Your task to perform on an android device: turn off translation in the chrome app Image 0: 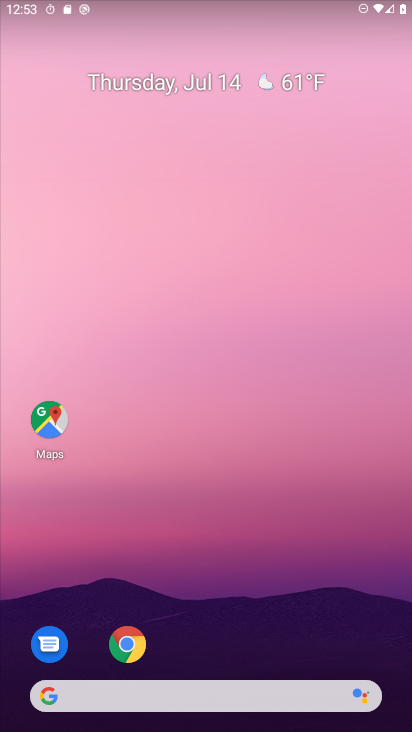
Step 0: drag from (227, 594) to (208, 124)
Your task to perform on an android device: turn off translation in the chrome app Image 1: 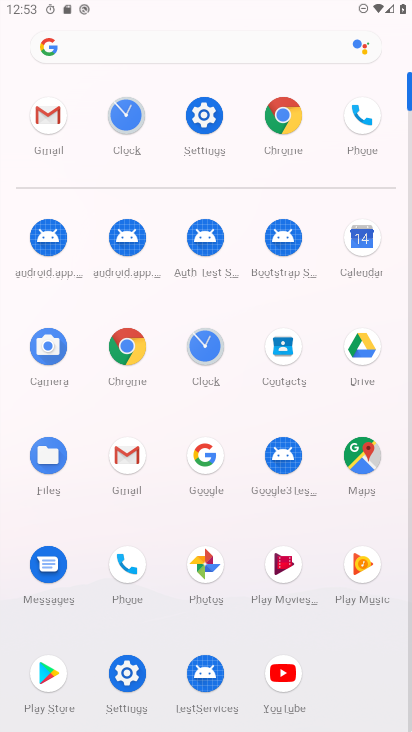
Step 1: click (127, 343)
Your task to perform on an android device: turn off translation in the chrome app Image 2: 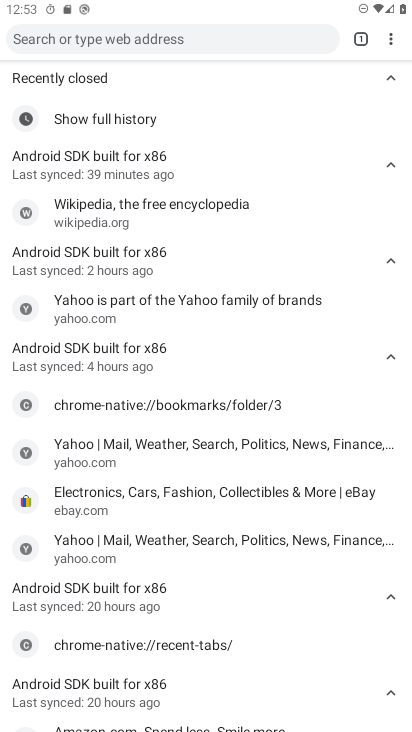
Step 2: drag from (393, 42) to (284, 329)
Your task to perform on an android device: turn off translation in the chrome app Image 3: 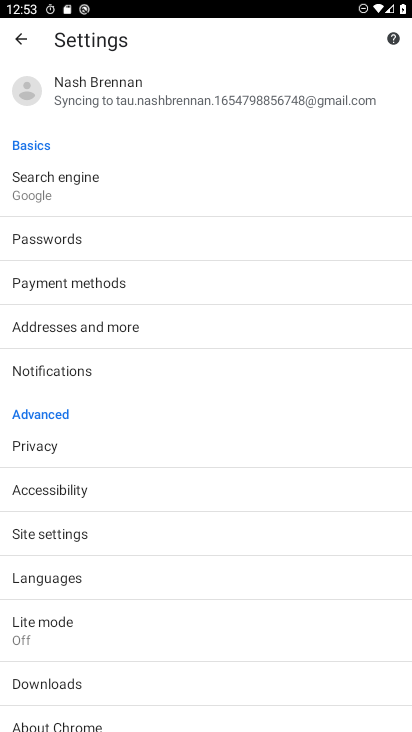
Step 3: click (85, 579)
Your task to perform on an android device: turn off translation in the chrome app Image 4: 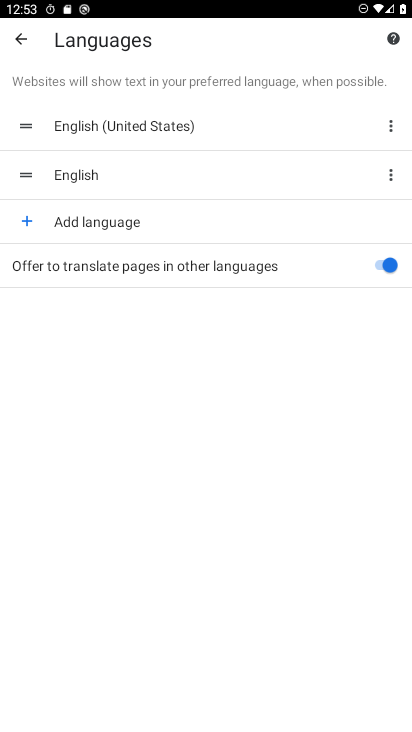
Step 4: click (382, 268)
Your task to perform on an android device: turn off translation in the chrome app Image 5: 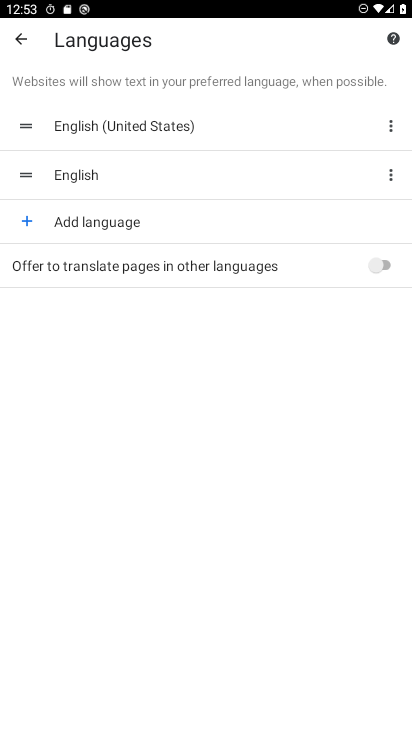
Step 5: task complete